Your task to perform on an android device: Open calendar and show me the second week of next month Image 0: 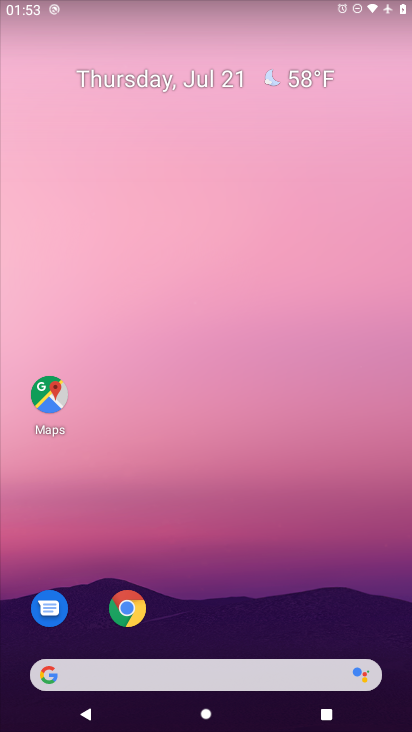
Step 0: drag from (228, 634) to (329, 9)
Your task to perform on an android device: Open calendar and show me the second week of next month Image 1: 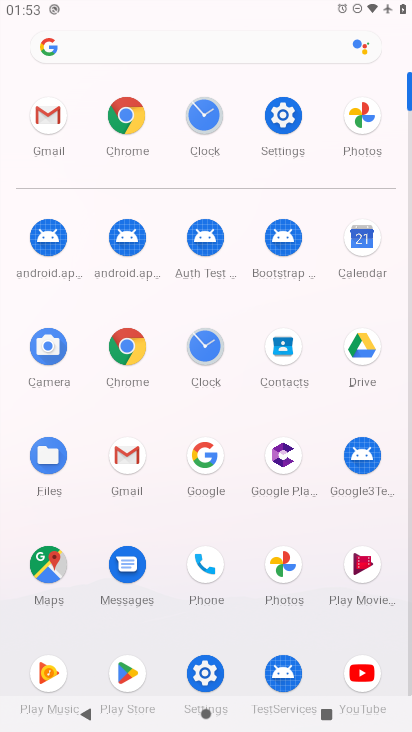
Step 1: click (360, 244)
Your task to perform on an android device: Open calendar and show me the second week of next month Image 2: 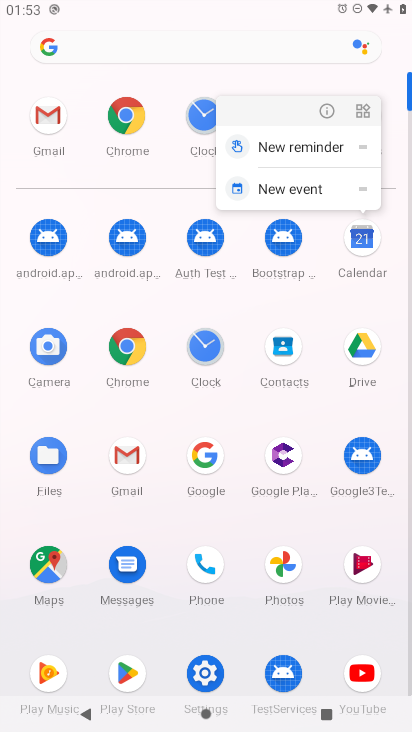
Step 2: click (360, 244)
Your task to perform on an android device: Open calendar and show me the second week of next month Image 3: 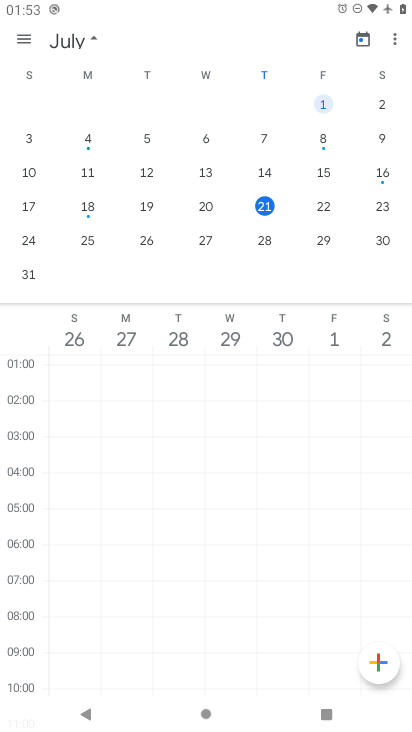
Step 3: drag from (270, 156) to (1, 160)
Your task to perform on an android device: Open calendar and show me the second week of next month Image 4: 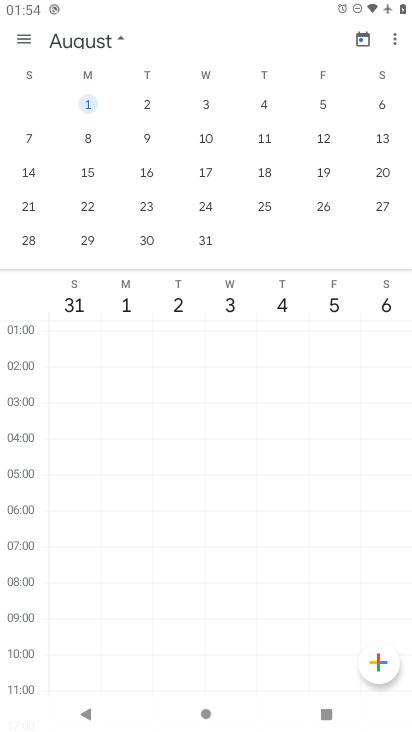
Step 4: click (84, 142)
Your task to perform on an android device: Open calendar and show me the second week of next month Image 5: 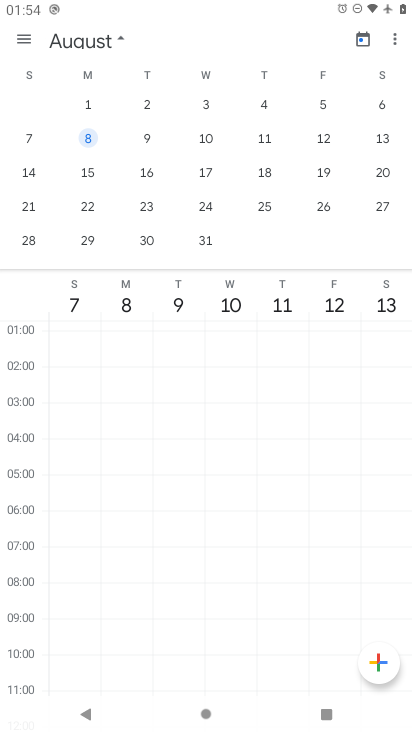
Step 5: click (152, 142)
Your task to perform on an android device: Open calendar and show me the second week of next month Image 6: 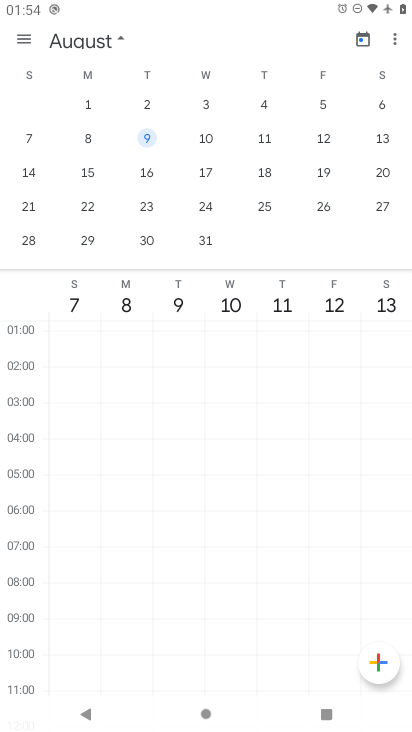
Step 6: click (210, 144)
Your task to perform on an android device: Open calendar and show me the second week of next month Image 7: 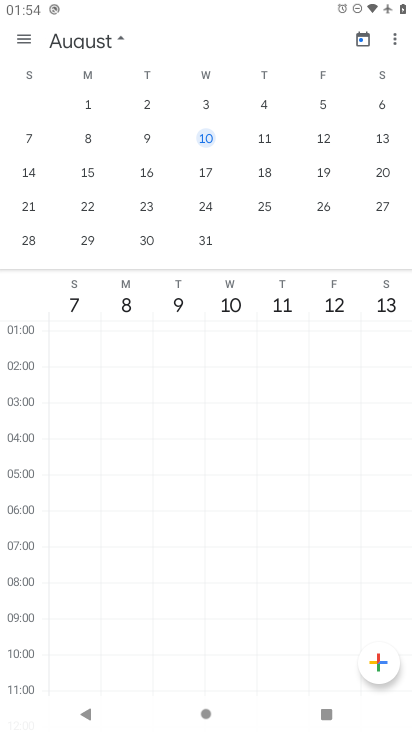
Step 7: click (263, 134)
Your task to perform on an android device: Open calendar and show me the second week of next month Image 8: 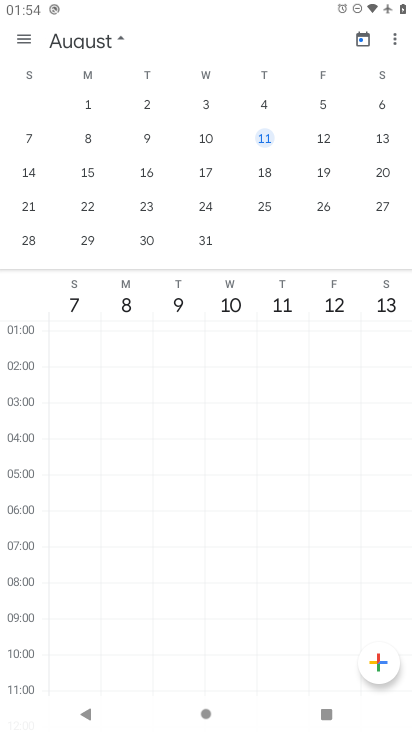
Step 8: click (329, 141)
Your task to perform on an android device: Open calendar and show me the second week of next month Image 9: 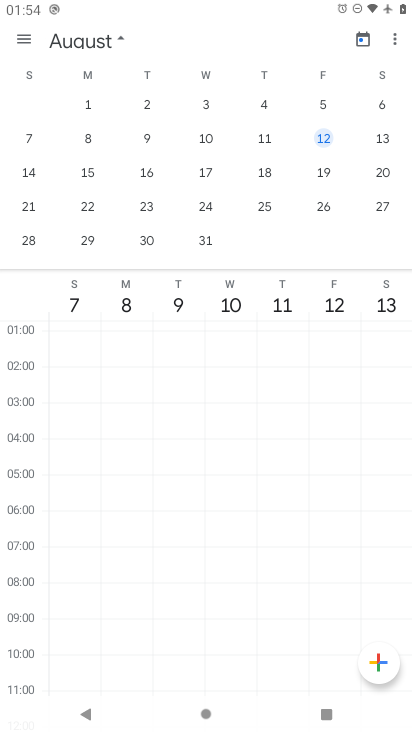
Step 9: click (380, 139)
Your task to perform on an android device: Open calendar and show me the second week of next month Image 10: 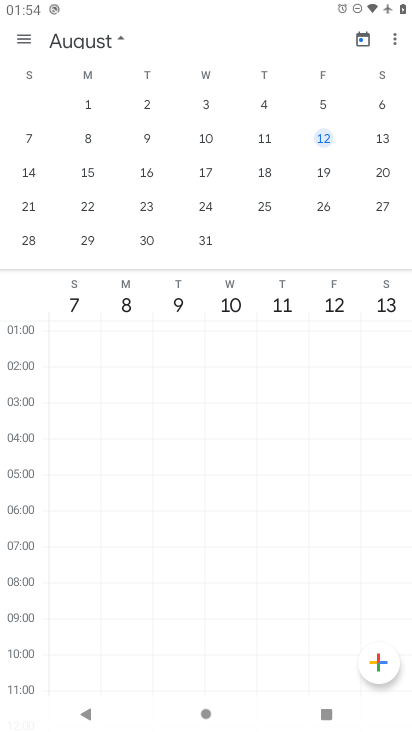
Step 10: click (27, 177)
Your task to perform on an android device: Open calendar and show me the second week of next month Image 11: 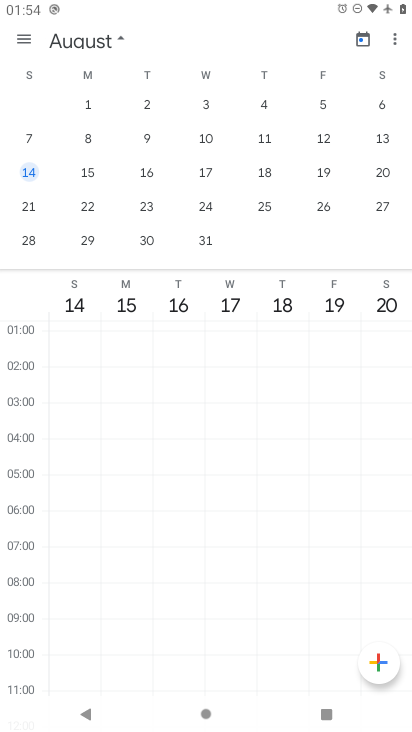
Step 11: task complete